Your task to perform on an android device: Open Google Maps and go to "Timeline" Image 0: 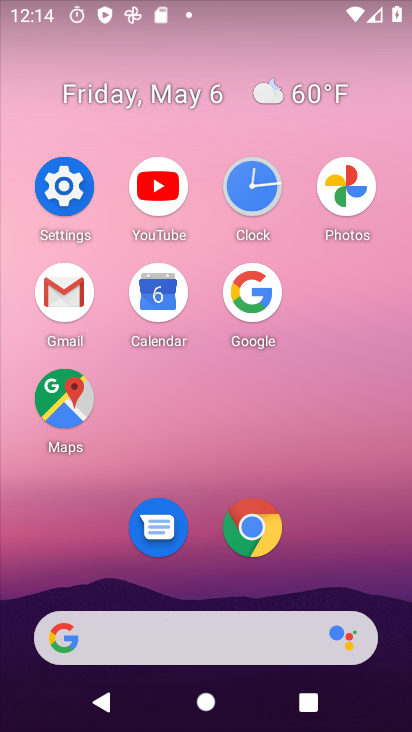
Step 0: click (59, 399)
Your task to perform on an android device: Open Google Maps and go to "Timeline" Image 1: 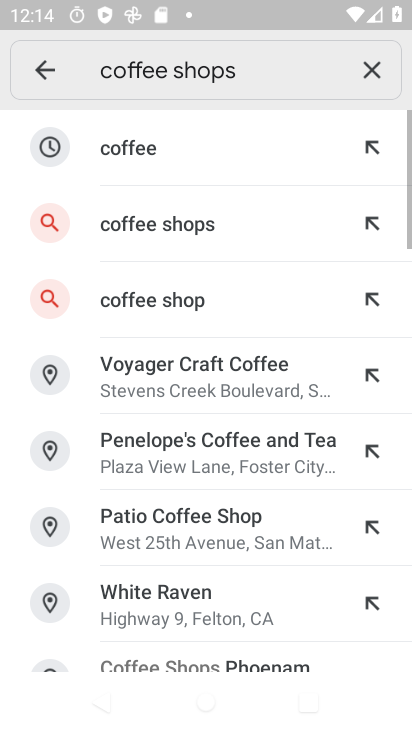
Step 1: click (57, 68)
Your task to perform on an android device: Open Google Maps and go to "Timeline" Image 2: 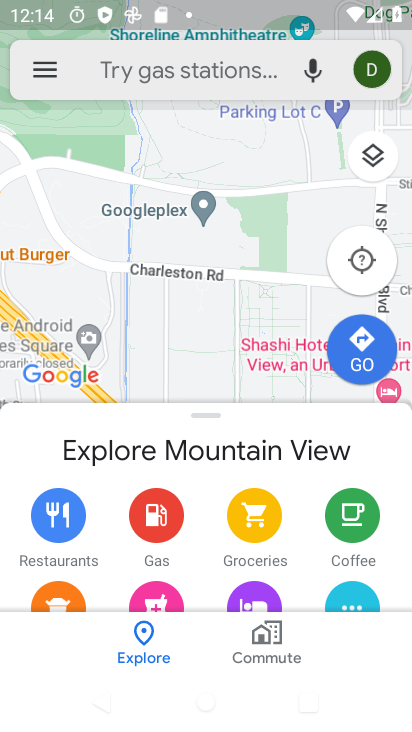
Step 2: click (57, 68)
Your task to perform on an android device: Open Google Maps and go to "Timeline" Image 3: 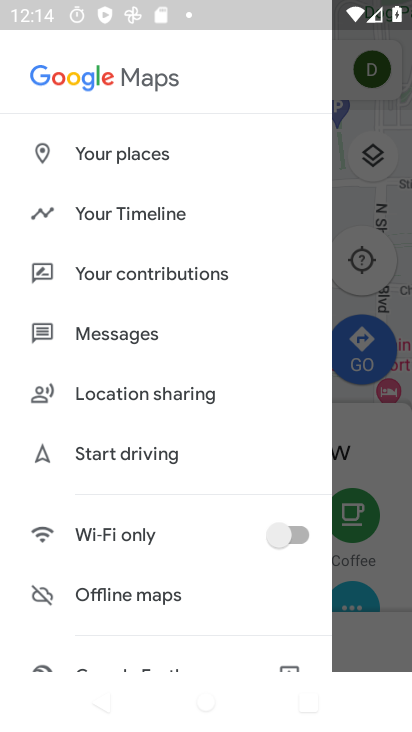
Step 3: drag from (199, 500) to (200, 111)
Your task to perform on an android device: Open Google Maps and go to "Timeline" Image 4: 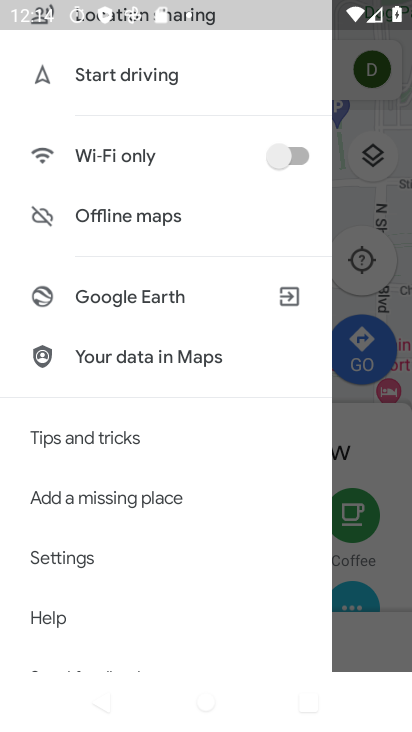
Step 4: drag from (200, 110) to (185, 652)
Your task to perform on an android device: Open Google Maps and go to "Timeline" Image 5: 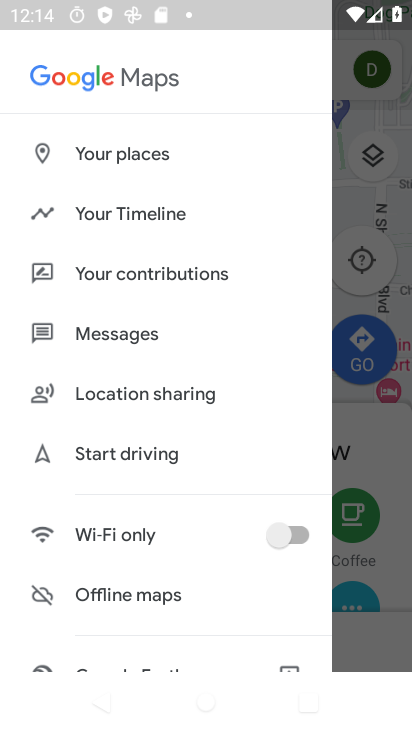
Step 5: click (114, 202)
Your task to perform on an android device: Open Google Maps and go to "Timeline" Image 6: 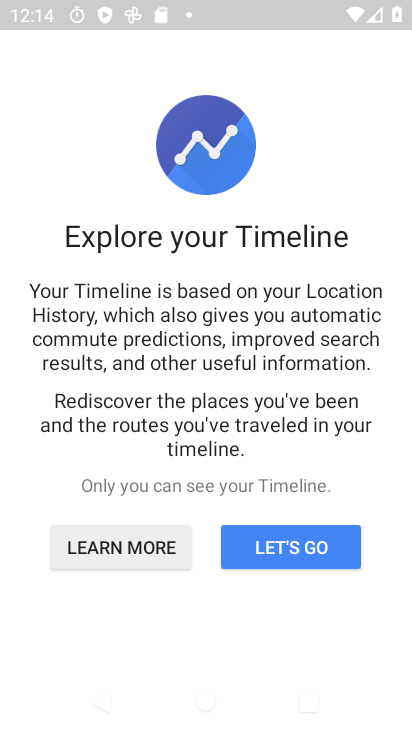
Step 6: click (315, 568)
Your task to perform on an android device: Open Google Maps and go to "Timeline" Image 7: 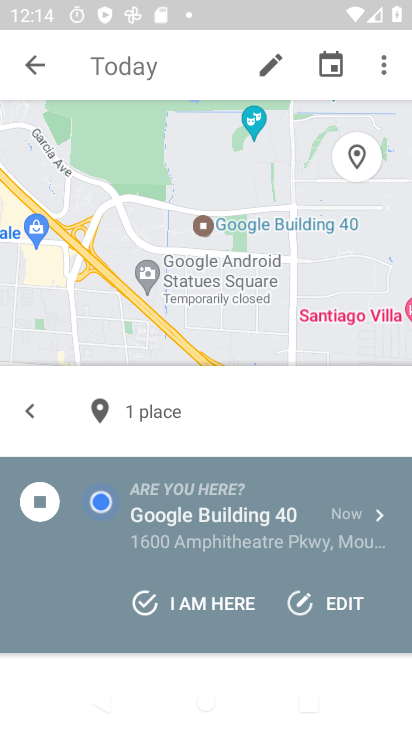
Step 7: task complete